Your task to perform on an android device: Go to display settings Image 0: 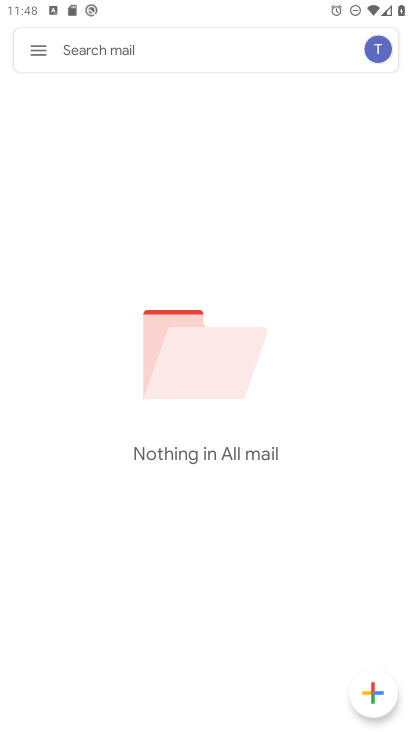
Step 0: click (37, 55)
Your task to perform on an android device: Go to display settings Image 1: 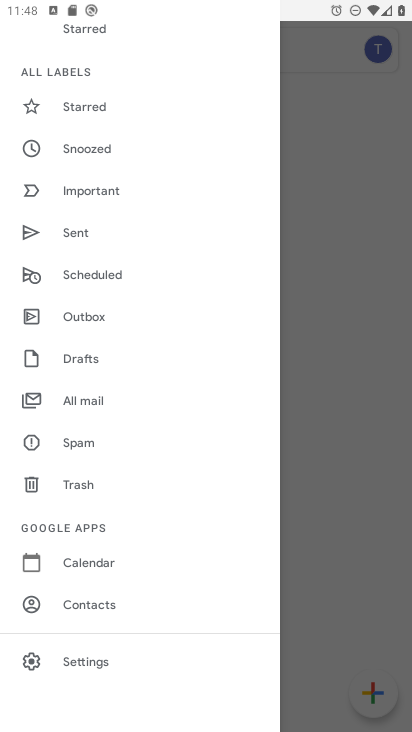
Step 1: press home button
Your task to perform on an android device: Go to display settings Image 2: 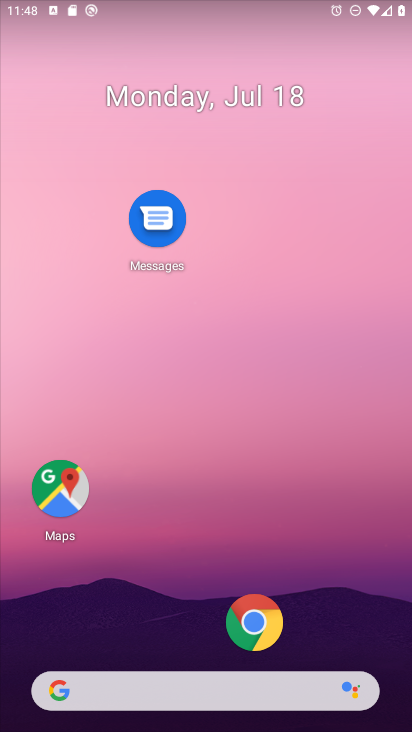
Step 2: drag from (162, 606) to (234, 13)
Your task to perform on an android device: Go to display settings Image 3: 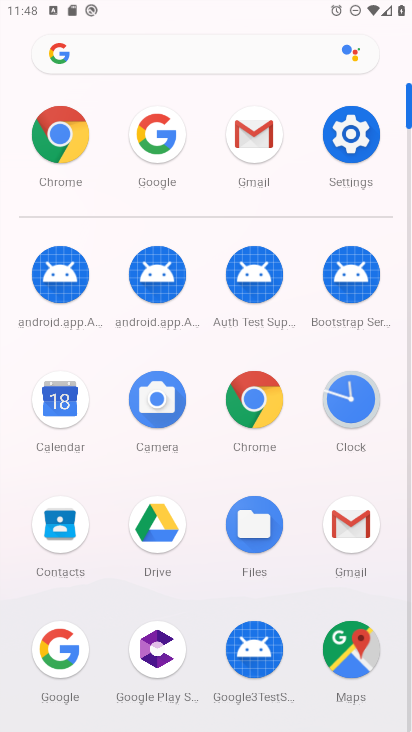
Step 3: click (333, 145)
Your task to perform on an android device: Go to display settings Image 4: 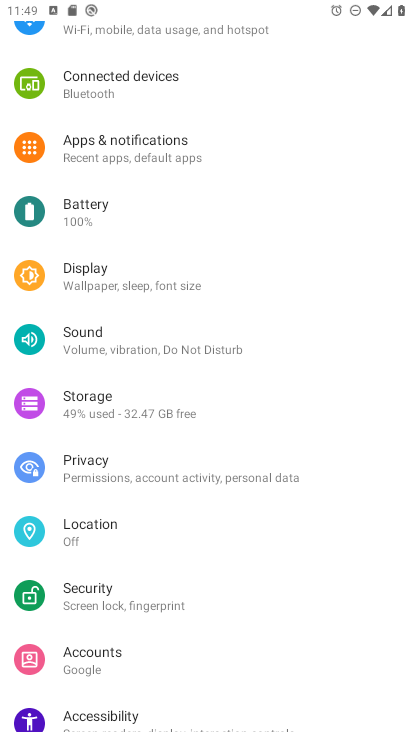
Step 4: click (199, 282)
Your task to perform on an android device: Go to display settings Image 5: 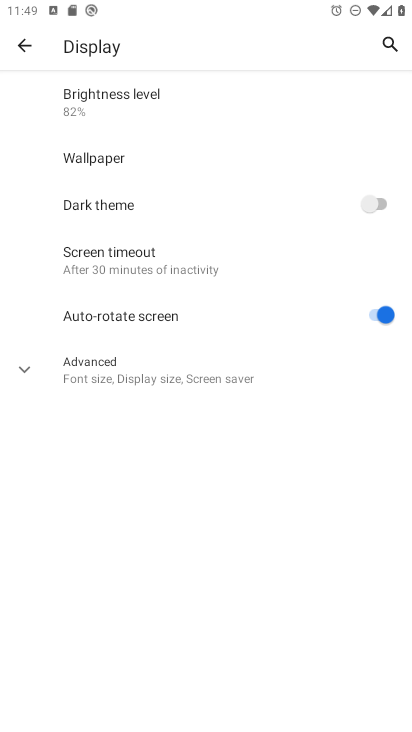
Step 5: task complete